Your task to perform on an android device: Open the phone app and click the voicemail tab. Image 0: 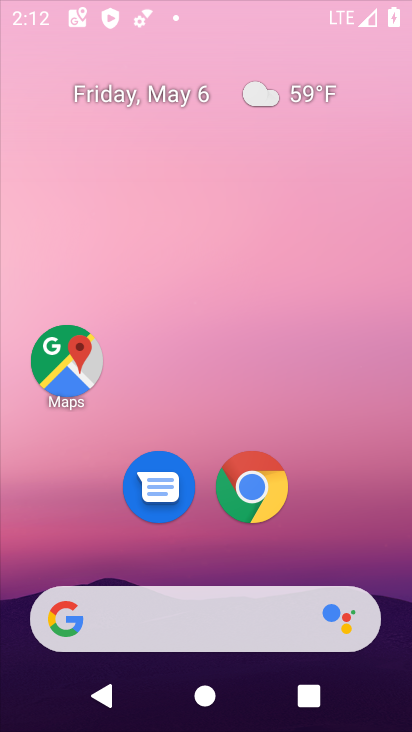
Step 0: press home button
Your task to perform on an android device: Open the phone app and click the voicemail tab. Image 1: 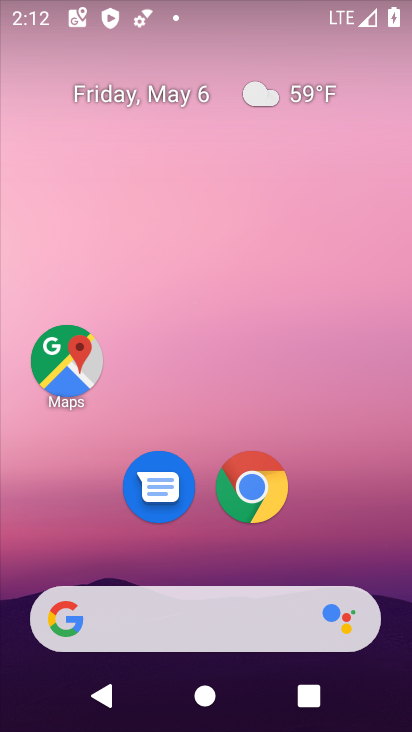
Step 1: drag from (276, 491) to (292, 127)
Your task to perform on an android device: Open the phone app and click the voicemail tab. Image 2: 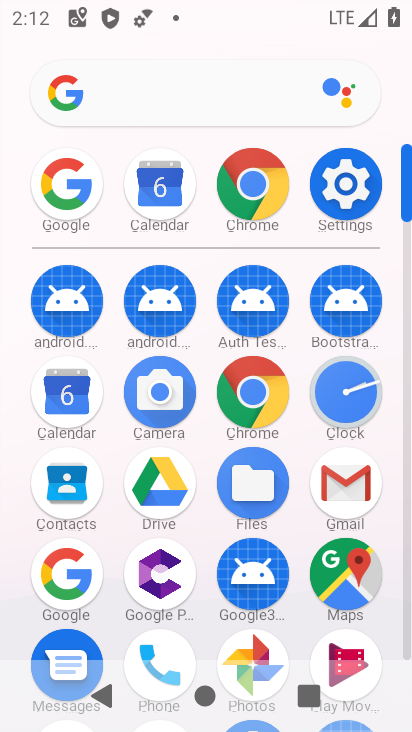
Step 2: drag from (308, 509) to (295, 55)
Your task to perform on an android device: Open the phone app and click the voicemail tab. Image 3: 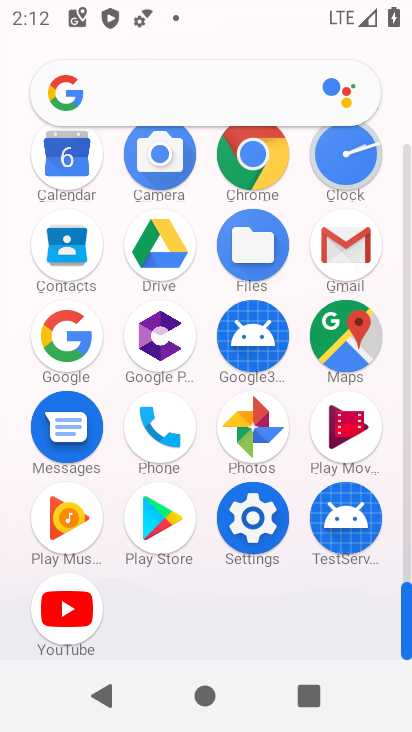
Step 3: click (157, 441)
Your task to perform on an android device: Open the phone app and click the voicemail tab. Image 4: 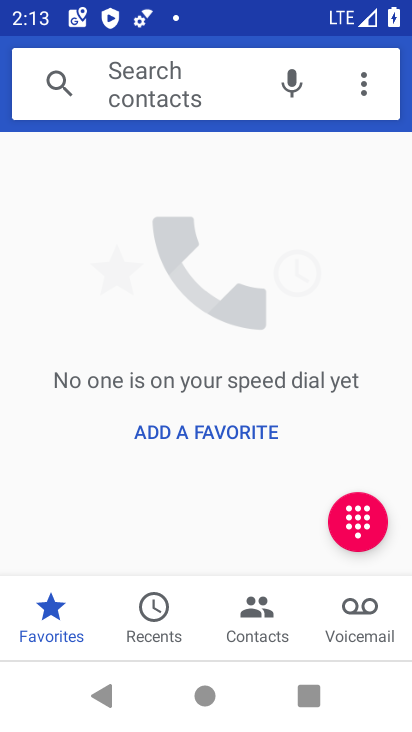
Step 4: click (373, 634)
Your task to perform on an android device: Open the phone app and click the voicemail tab. Image 5: 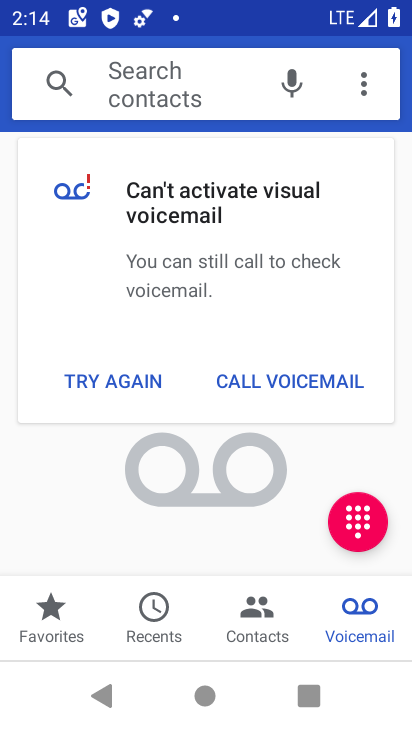
Step 5: task complete